Your task to perform on an android device: Go to Google Image 0: 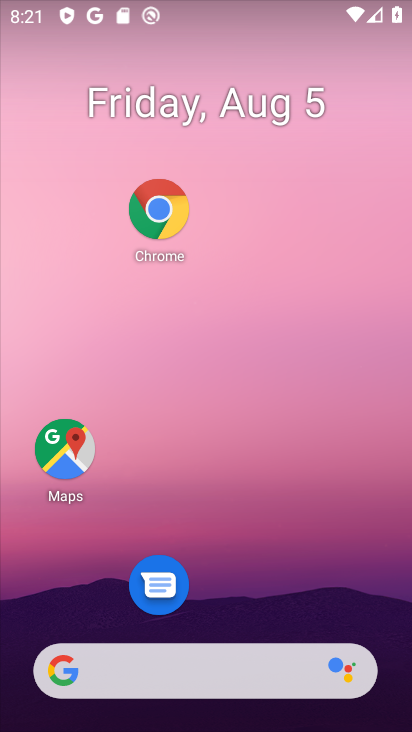
Step 0: drag from (252, 636) to (180, 40)
Your task to perform on an android device: Go to Google Image 1: 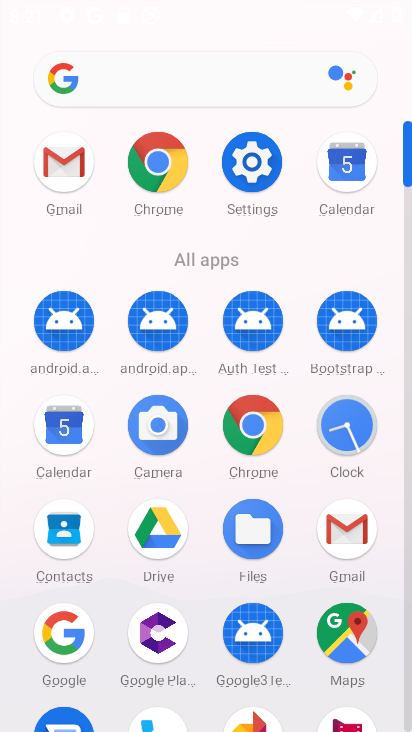
Step 1: click (62, 611)
Your task to perform on an android device: Go to Google Image 2: 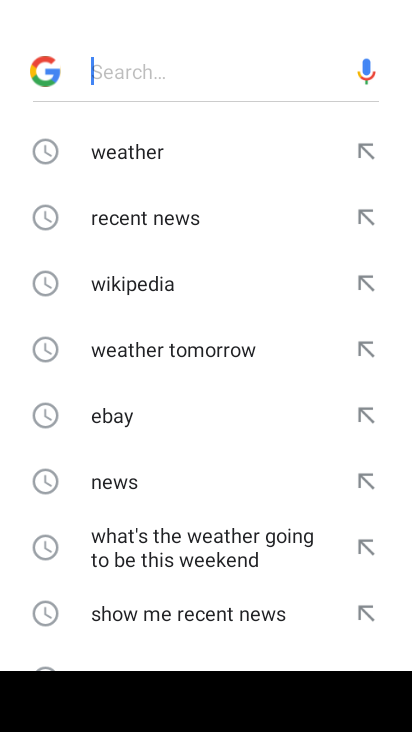
Step 2: task complete